Your task to perform on an android device: Open Reddit.com Image 0: 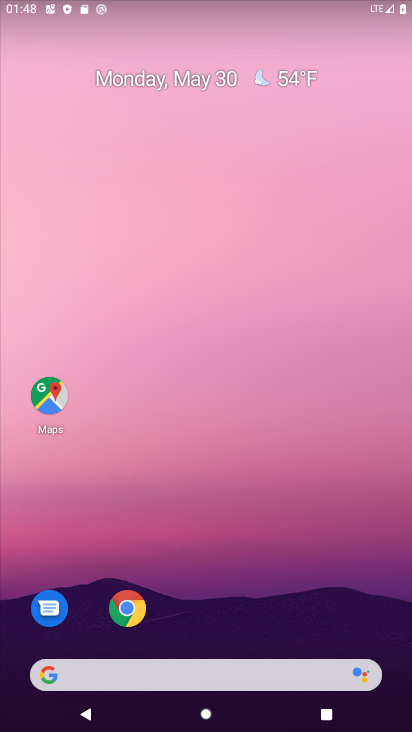
Step 0: click (130, 598)
Your task to perform on an android device: Open Reddit.com Image 1: 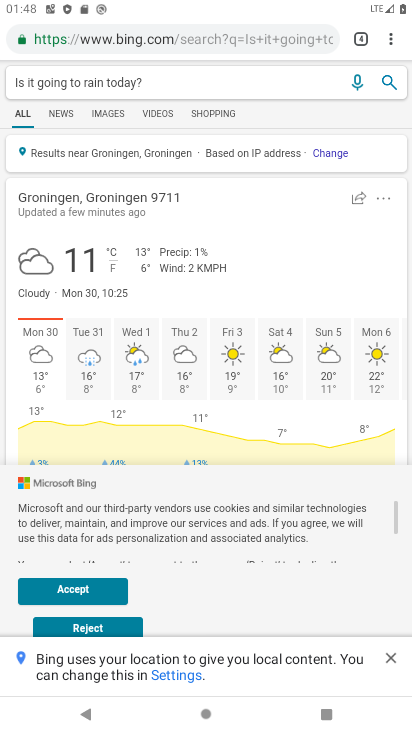
Step 1: click (388, 40)
Your task to perform on an android device: Open Reddit.com Image 2: 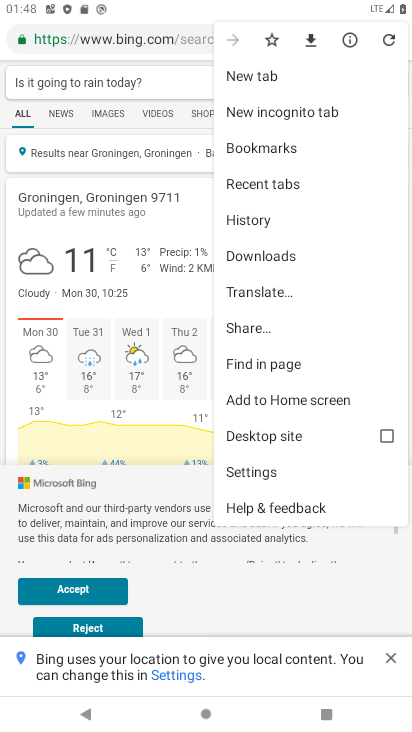
Step 2: click (262, 72)
Your task to perform on an android device: Open Reddit.com Image 3: 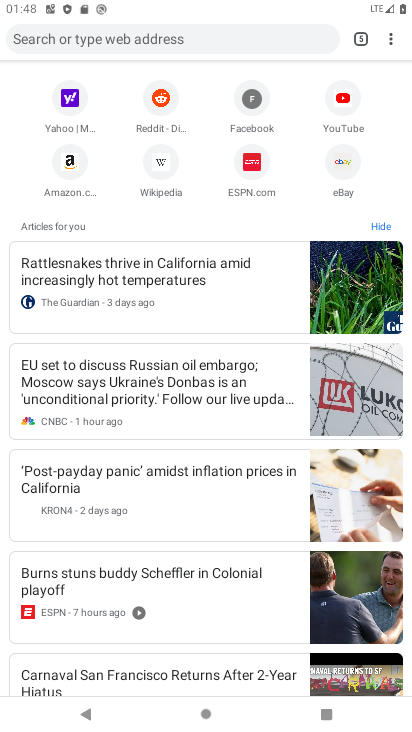
Step 3: click (159, 110)
Your task to perform on an android device: Open Reddit.com Image 4: 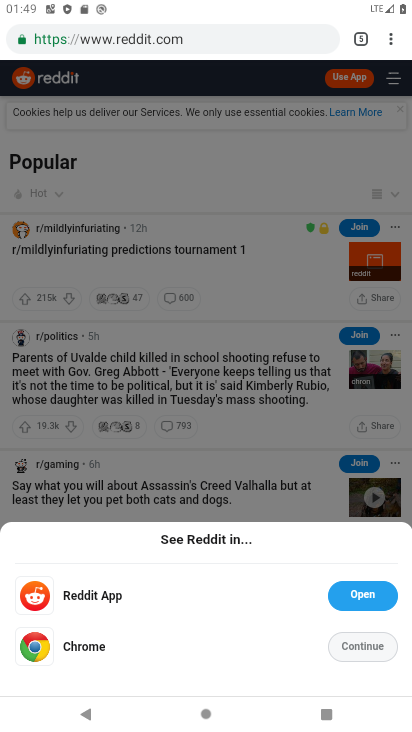
Step 4: task complete